Your task to perform on an android device: Go to ESPN.com Image 0: 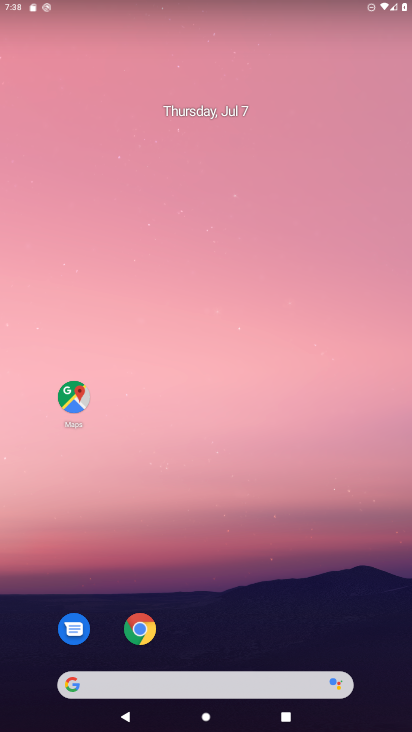
Step 0: drag from (355, 610) to (374, 220)
Your task to perform on an android device: Go to ESPN.com Image 1: 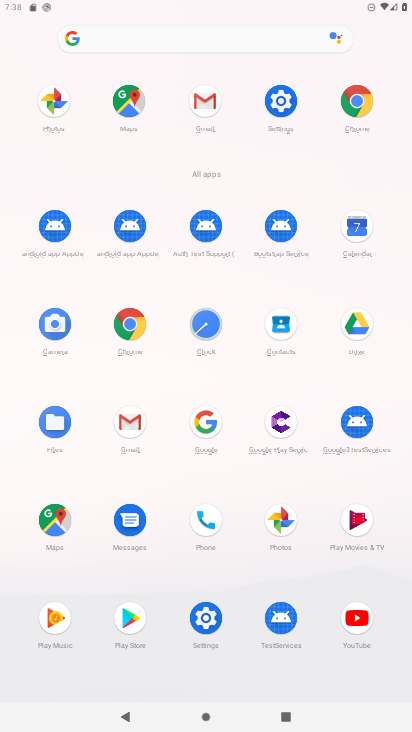
Step 1: click (138, 336)
Your task to perform on an android device: Go to ESPN.com Image 2: 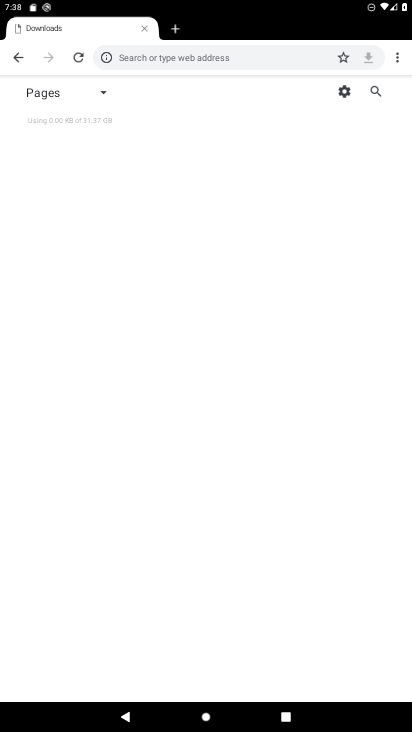
Step 2: click (222, 54)
Your task to perform on an android device: Go to ESPN.com Image 3: 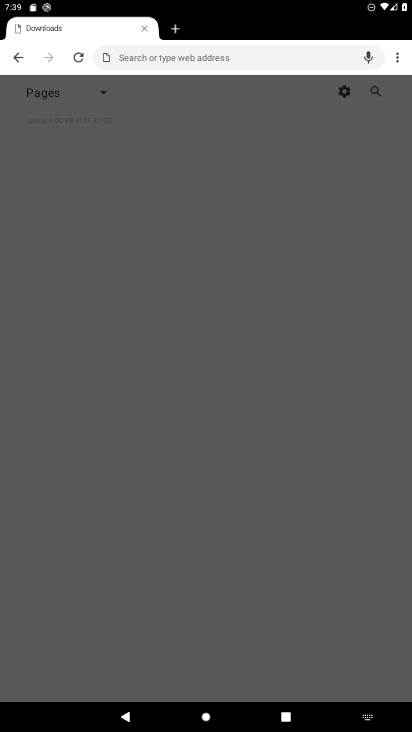
Step 3: type "espn.com"
Your task to perform on an android device: Go to ESPN.com Image 4: 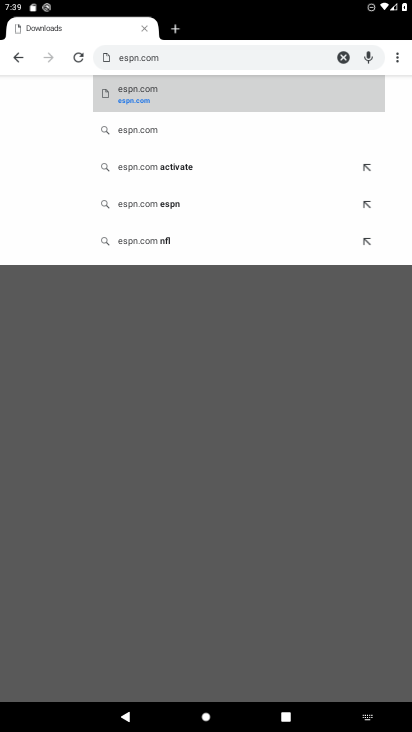
Step 4: click (291, 99)
Your task to perform on an android device: Go to ESPN.com Image 5: 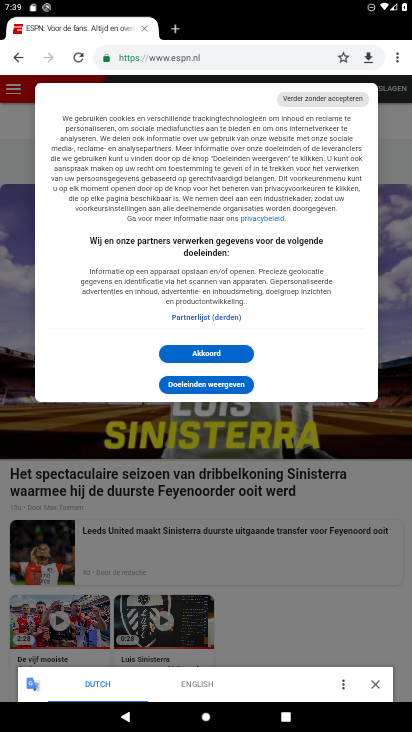
Step 5: task complete